Your task to perform on an android device: delete location history Image 0: 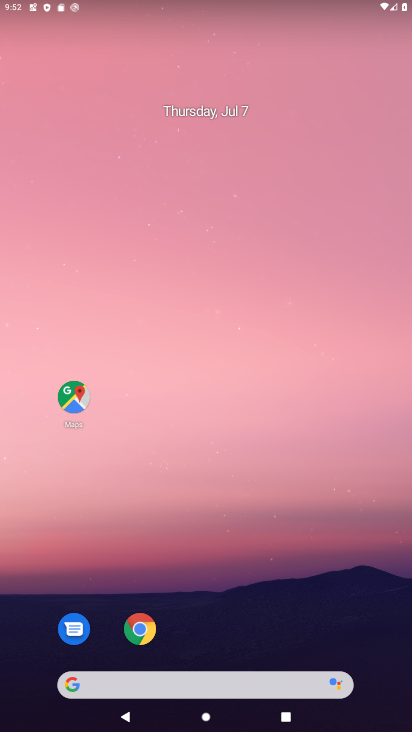
Step 0: drag from (234, 663) to (183, 101)
Your task to perform on an android device: delete location history Image 1: 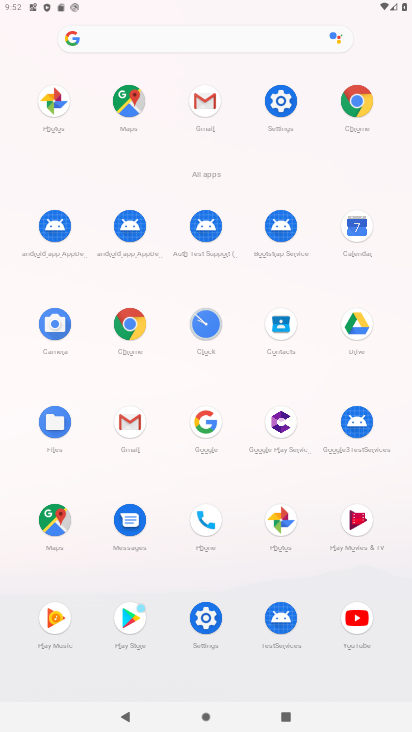
Step 1: click (49, 508)
Your task to perform on an android device: delete location history Image 2: 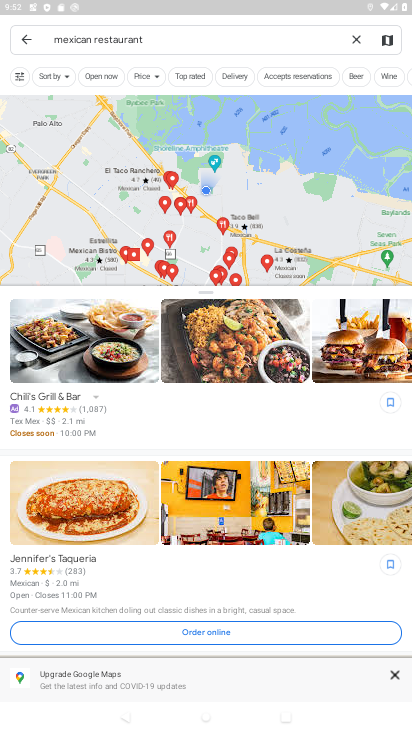
Step 2: click (20, 38)
Your task to perform on an android device: delete location history Image 3: 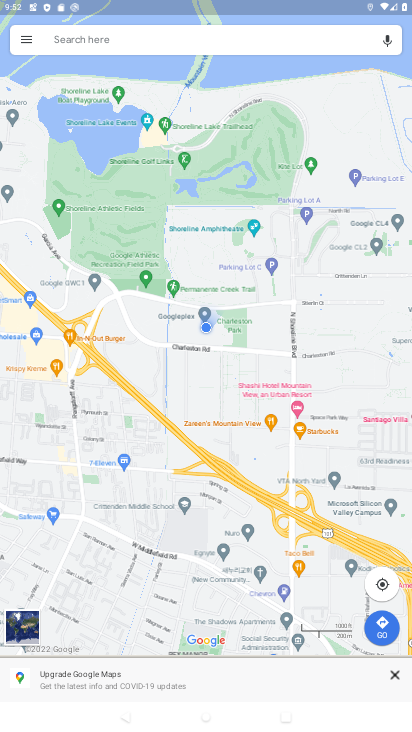
Step 3: click (20, 38)
Your task to perform on an android device: delete location history Image 4: 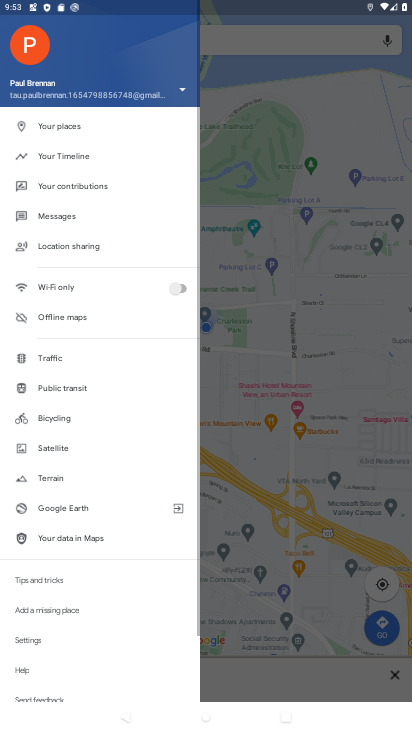
Step 4: click (53, 161)
Your task to perform on an android device: delete location history Image 5: 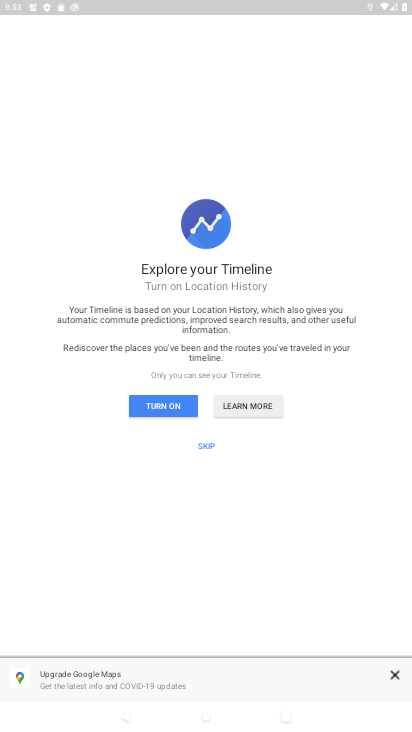
Step 5: click (170, 397)
Your task to perform on an android device: delete location history Image 6: 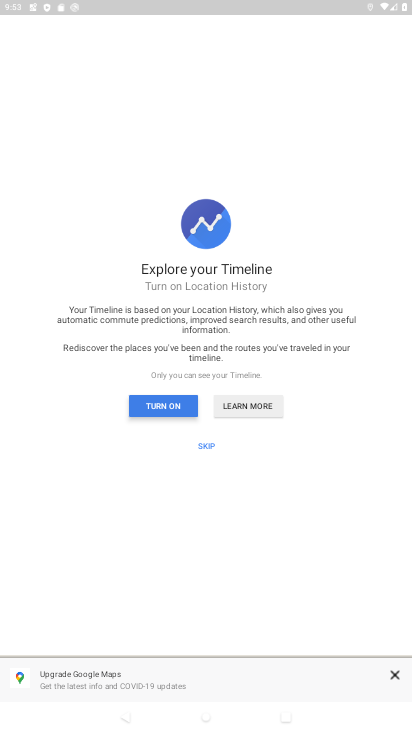
Step 6: click (396, 673)
Your task to perform on an android device: delete location history Image 7: 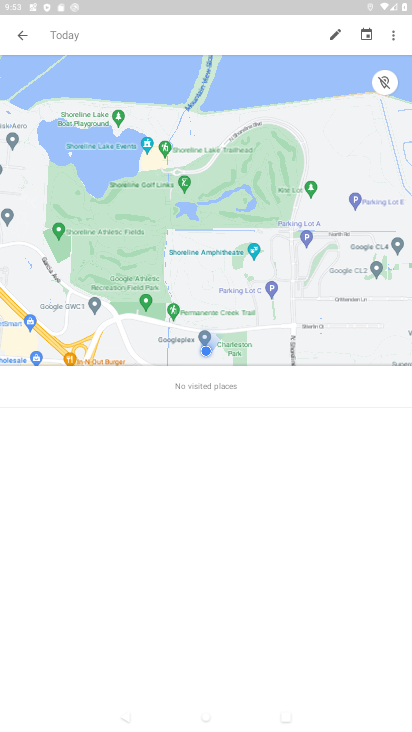
Step 7: click (393, 34)
Your task to perform on an android device: delete location history Image 8: 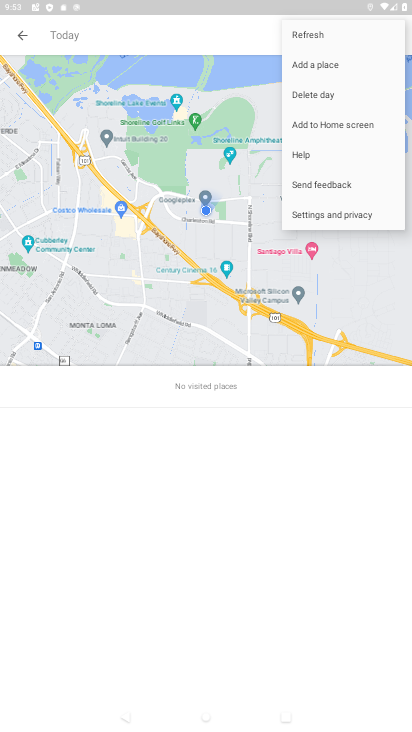
Step 8: click (316, 213)
Your task to perform on an android device: delete location history Image 9: 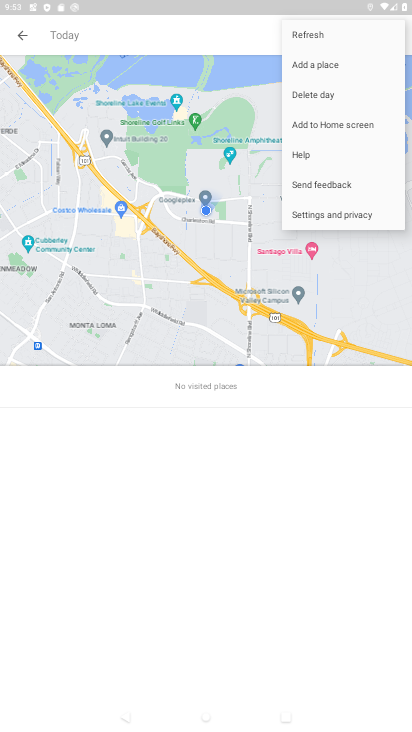
Step 9: click (323, 206)
Your task to perform on an android device: delete location history Image 10: 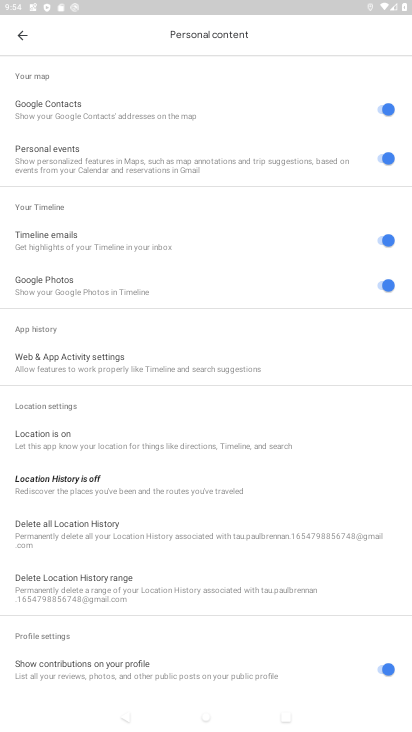
Step 10: click (102, 526)
Your task to perform on an android device: delete location history Image 11: 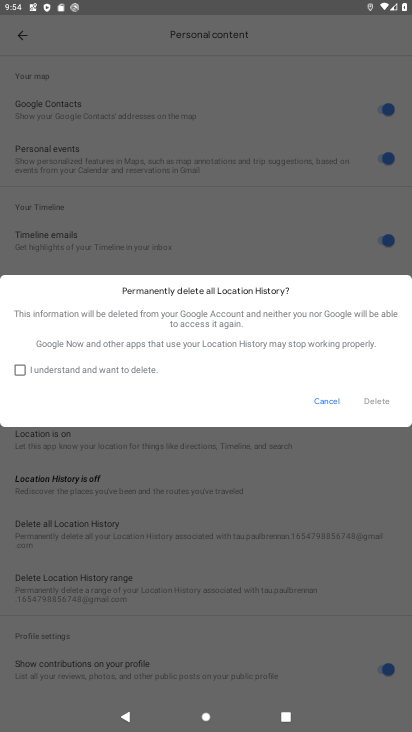
Step 11: click (20, 362)
Your task to perform on an android device: delete location history Image 12: 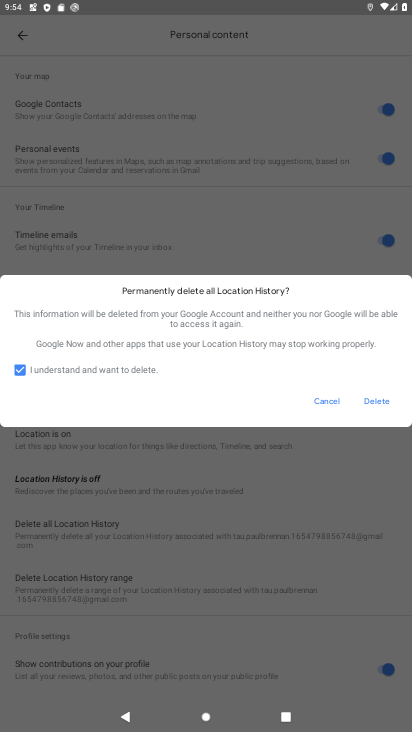
Step 12: click (378, 399)
Your task to perform on an android device: delete location history Image 13: 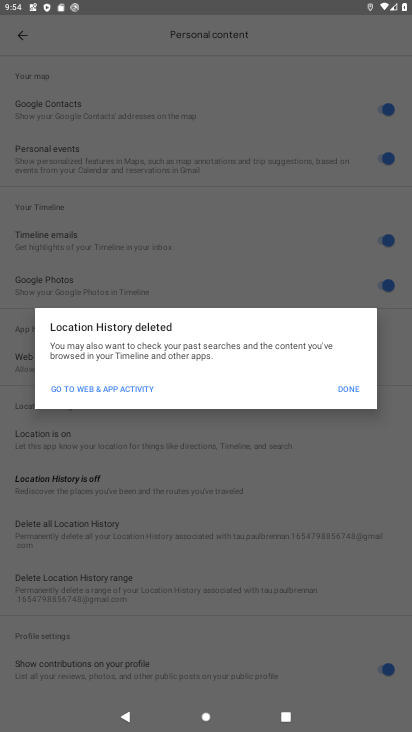
Step 13: click (346, 385)
Your task to perform on an android device: delete location history Image 14: 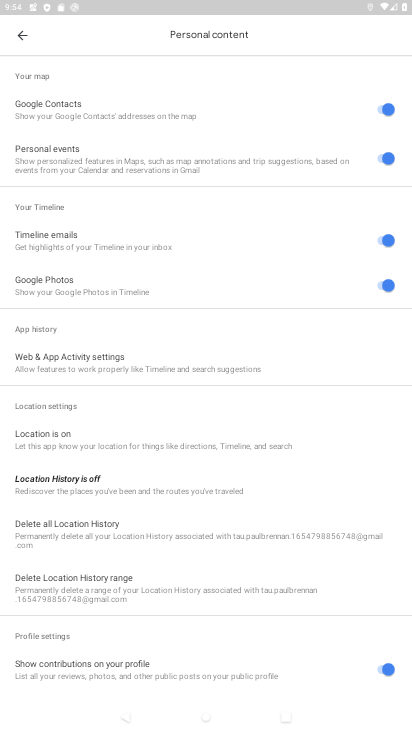
Step 14: task complete